Your task to perform on an android device: change the clock display to show seconds Image 0: 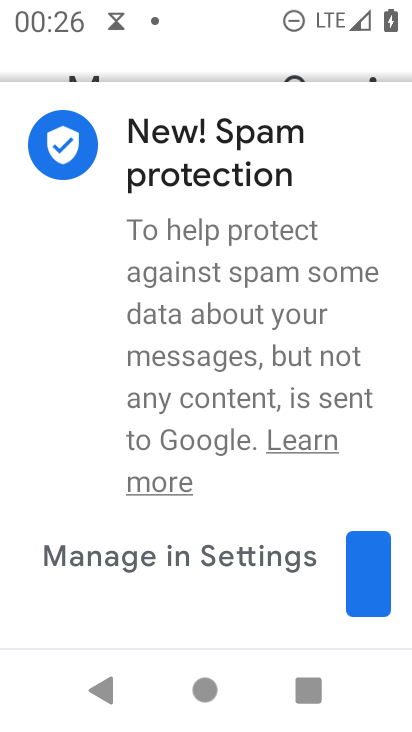
Step 0: drag from (233, 721) to (223, 132)
Your task to perform on an android device: change the clock display to show seconds Image 1: 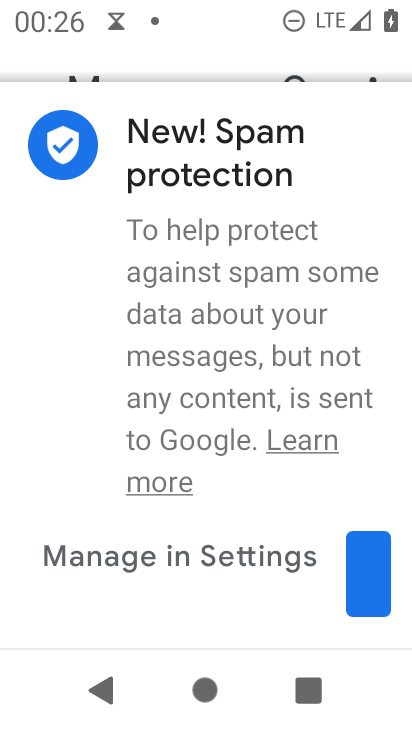
Step 1: press home button
Your task to perform on an android device: change the clock display to show seconds Image 2: 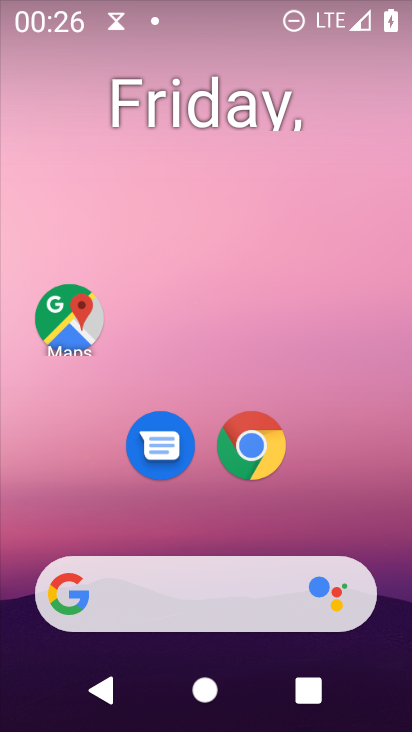
Step 2: drag from (224, 727) to (197, 60)
Your task to perform on an android device: change the clock display to show seconds Image 3: 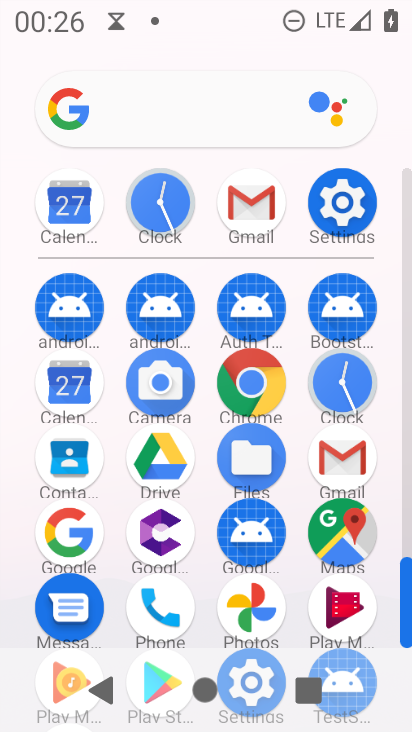
Step 3: click (342, 385)
Your task to perform on an android device: change the clock display to show seconds Image 4: 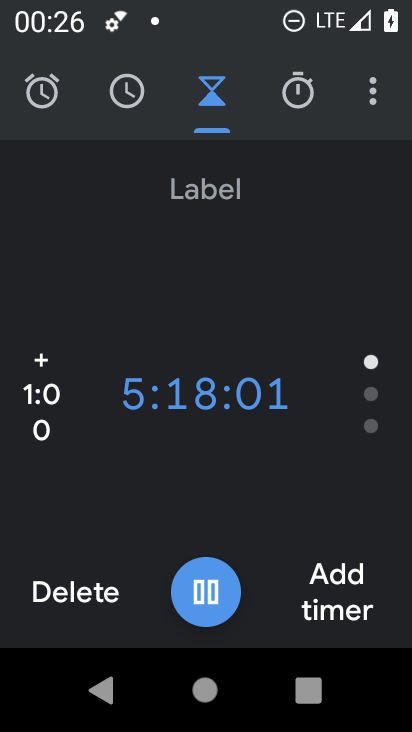
Step 4: click (373, 105)
Your task to perform on an android device: change the clock display to show seconds Image 5: 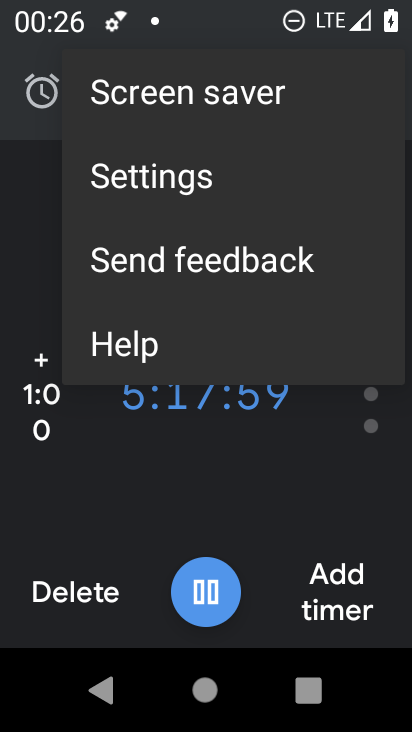
Step 5: click (156, 180)
Your task to perform on an android device: change the clock display to show seconds Image 6: 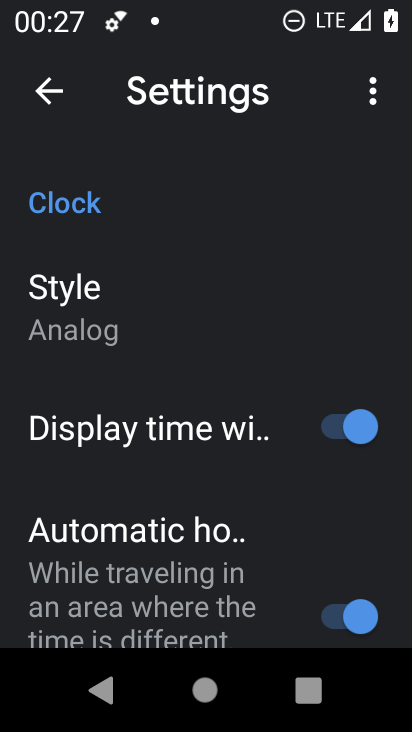
Step 6: task complete